Your task to perform on an android device: Search for the new nike air max 270 on Nike.com Image 0: 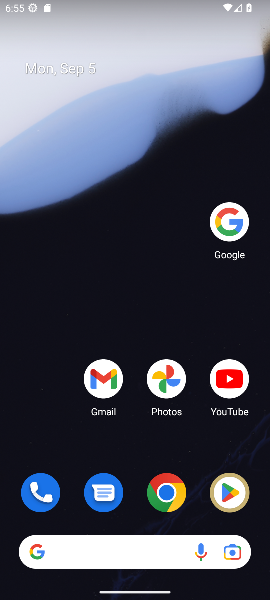
Step 0: click (227, 216)
Your task to perform on an android device: Search for the new nike air max 270 on Nike.com Image 1: 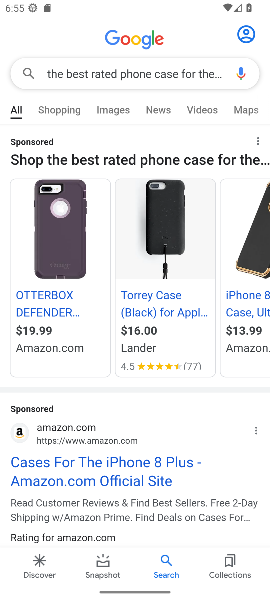
Step 1: click (156, 65)
Your task to perform on an android device: Search for the new nike air max 270 on Nike.com Image 2: 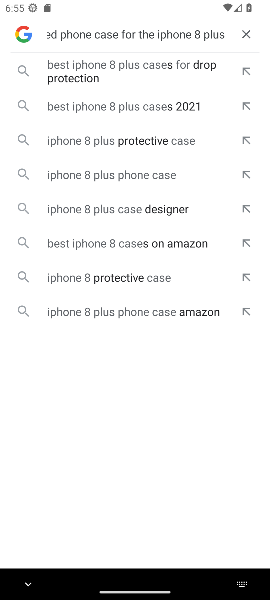
Step 2: click (241, 31)
Your task to perform on an android device: Search for the new nike air max 270 on Nike.com Image 3: 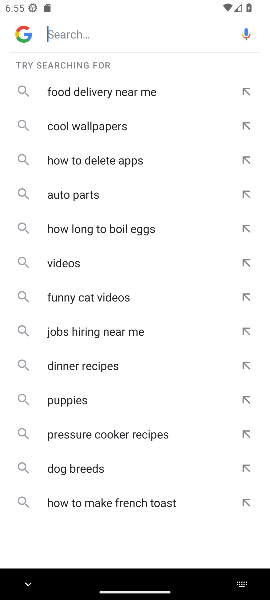
Step 3: click (120, 29)
Your task to perform on an android device: Search for the new nike air max 270 on Nike.com Image 4: 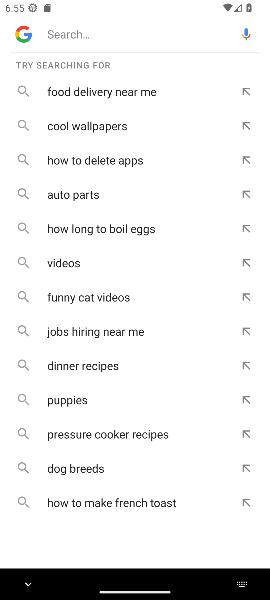
Step 4: type "the new nike air max 270 on Nike.com "
Your task to perform on an android device: Search for the new nike air max 270 on Nike.com Image 5: 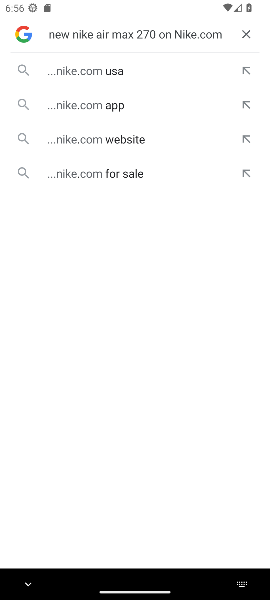
Step 5: click (117, 63)
Your task to perform on an android device: Search for the new nike air max 270 on Nike.com Image 6: 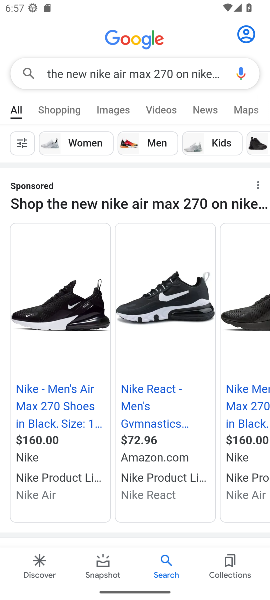
Step 6: task complete